Your task to perform on an android device: toggle airplane mode Image 0: 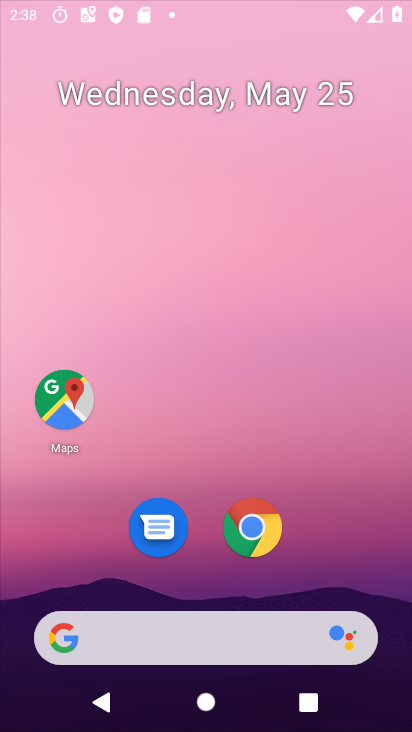
Step 0: click (252, 57)
Your task to perform on an android device: toggle airplane mode Image 1: 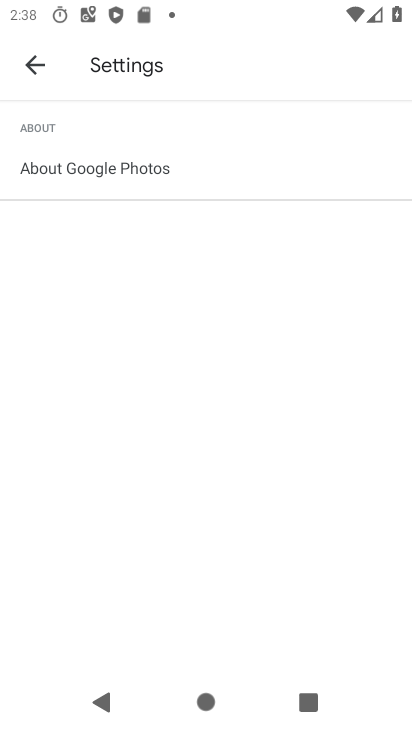
Step 1: drag from (217, 554) to (279, 209)
Your task to perform on an android device: toggle airplane mode Image 2: 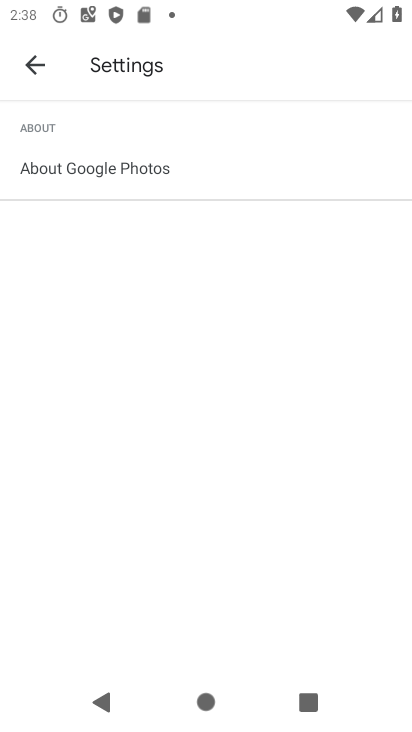
Step 2: press home button
Your task to perform on an android device: toggle airplane mode Image 3: 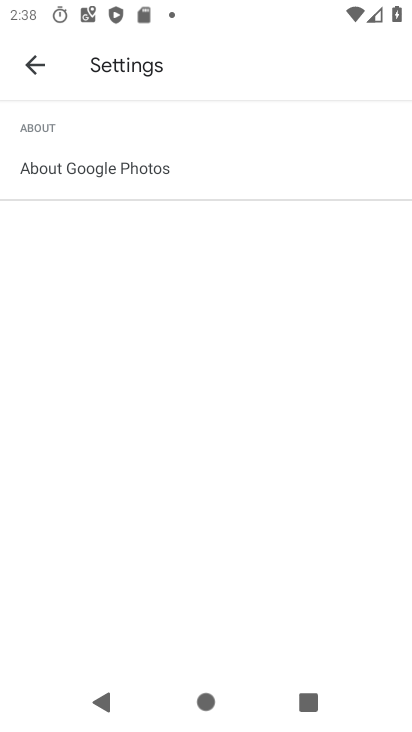
Step 3: press home button
Your task to perform on an android device: toggle airplane mode Image 4: 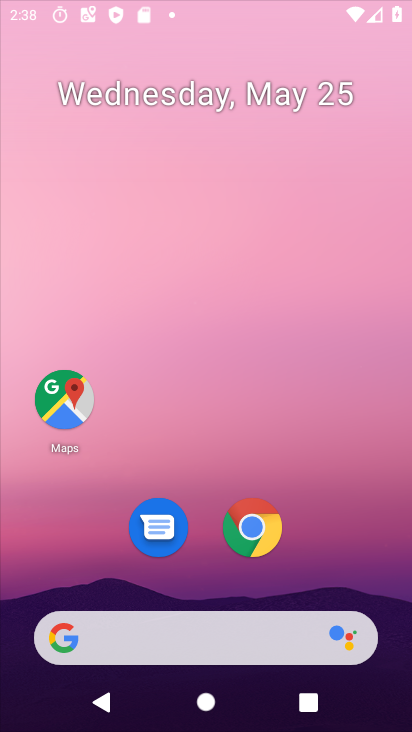
Step 4: drag from (212, 633) to (287, 57)
Your task to perform on an android device: toggle airplane mode Image 5: 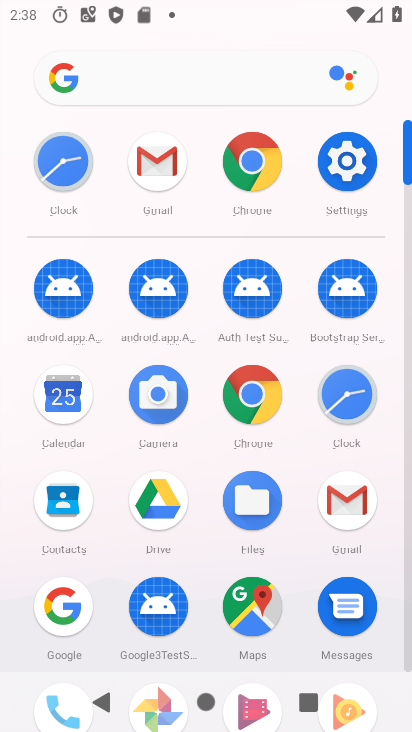
Step 5: click (349, 150)
Your task to perform on an android device: toggle airplane mode Image 6: 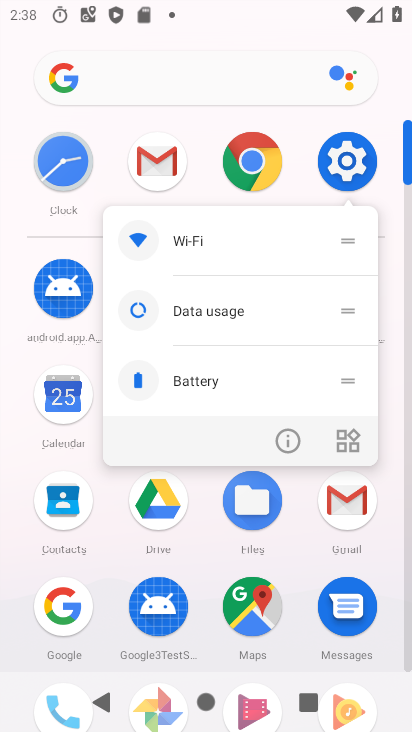
Step 6: click (284, 447)
Your task to perform on an android device: toggle airplane mode Image 7: 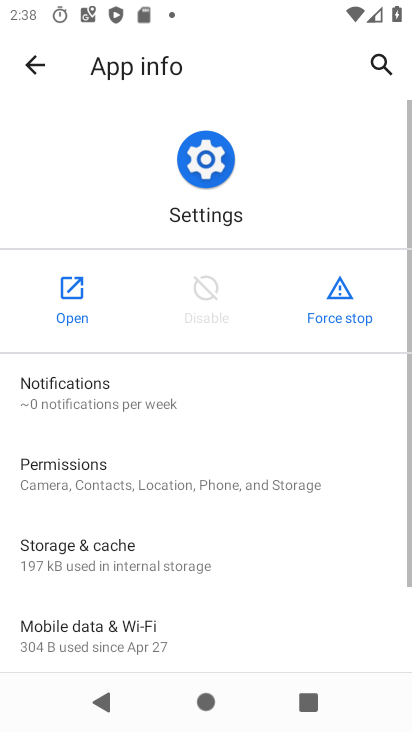
Step 7: click (63, 284)
Your task to perform on an android device: toggle airplane mode Image 8: 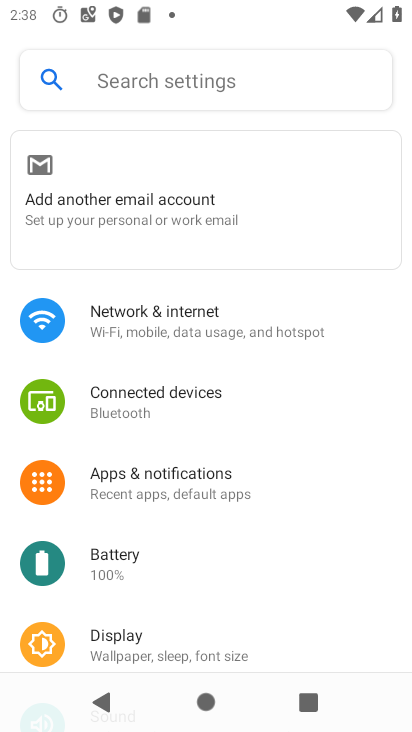
Step 8: click (187, 332)
Your task to perform on an android device: toggle airplane mode Image 9: 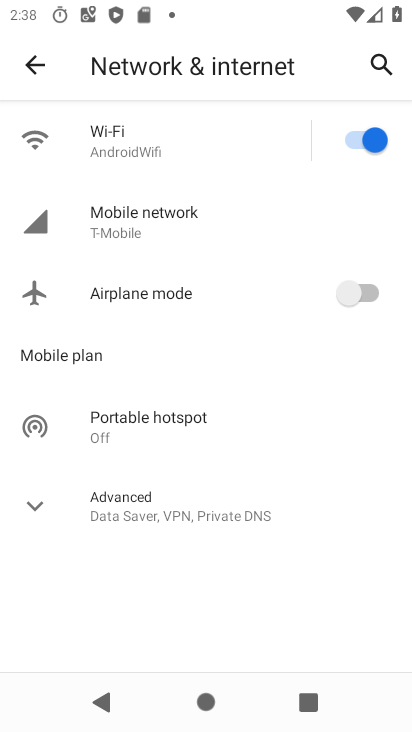
Step 9: click (207, 302)
Your task to perform on an android device: toggle airplane mode Image 10: 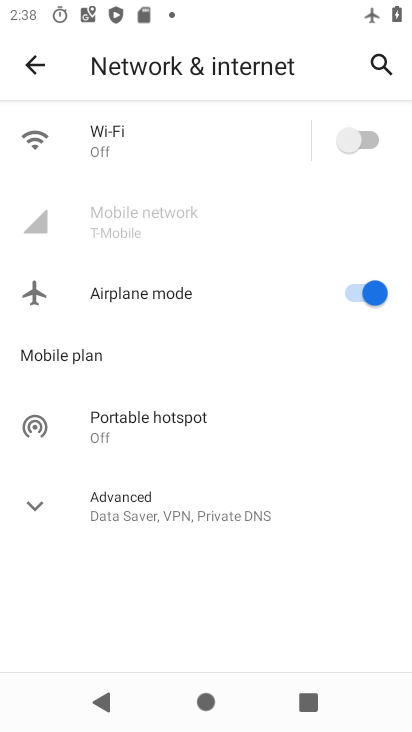
Step 10: task complete